Your task to perform on an android device: Open the map Image 0: 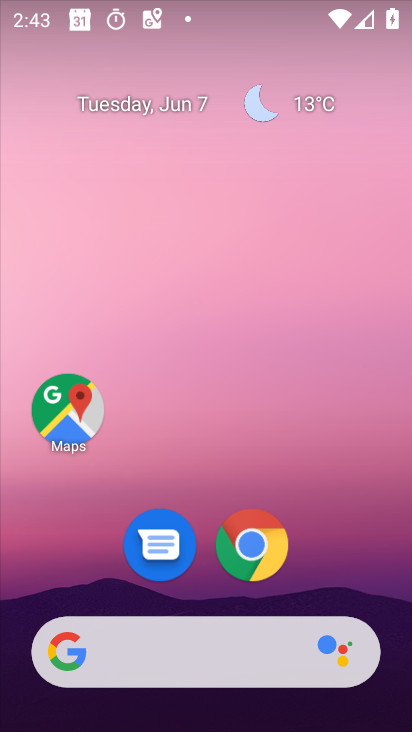
Step 0: click (83, 403)
Your task to perform on an android device: Open the map Image 1: 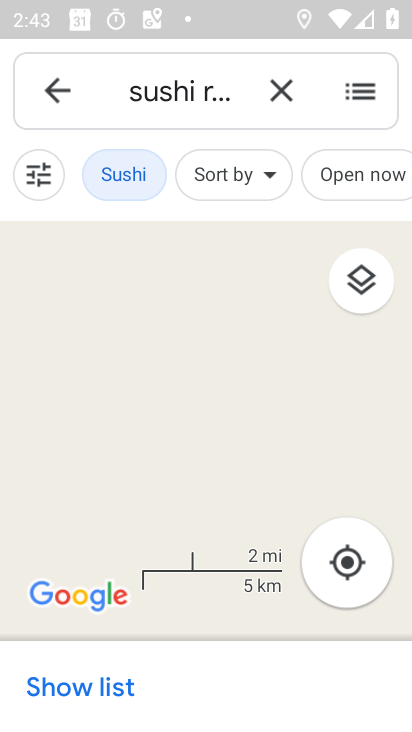
Step 1: task complete